Your task to perform on an android device: What's on my calendar today? Image 0: 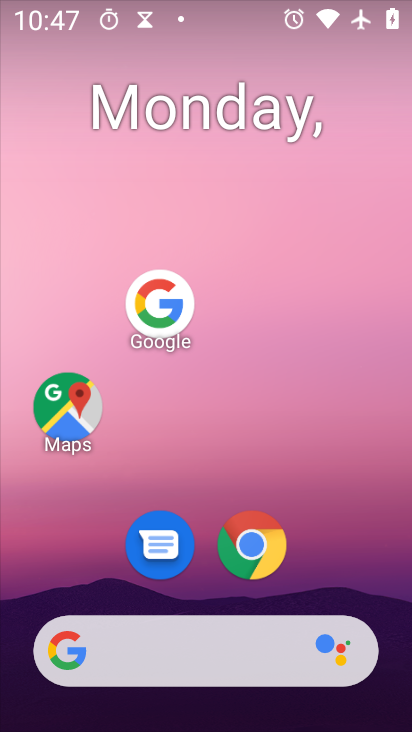
Step 0: drag from (186, 656) to (365, 85)
Your task to perform on an android device: What's on my calendar today? Image 1: 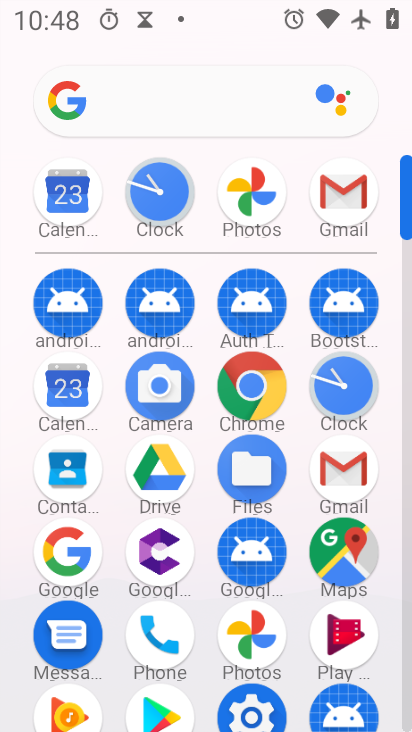
Step 1: click (62, 401)
Your task to perform on an android device: What's on my calendar today? Image 2: 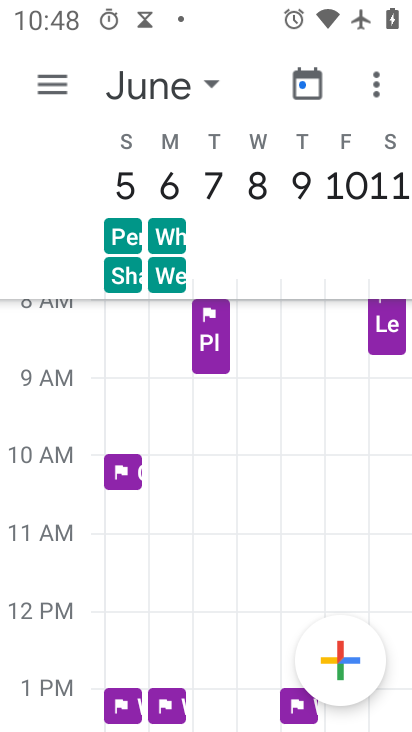
Step 2: click (136, 80)
Your task to perform on an android device: What's on my calendar today? Image 3: 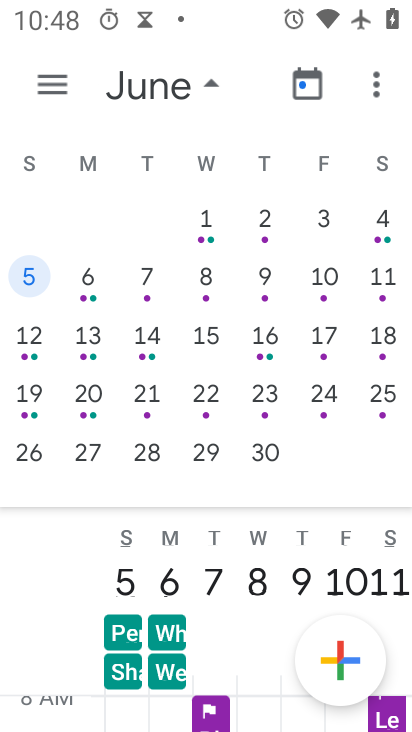
Step 3: drag from (81, 387) to (395, 379)
Your task to perform on an android device: What's on my calendar today? Image 4: 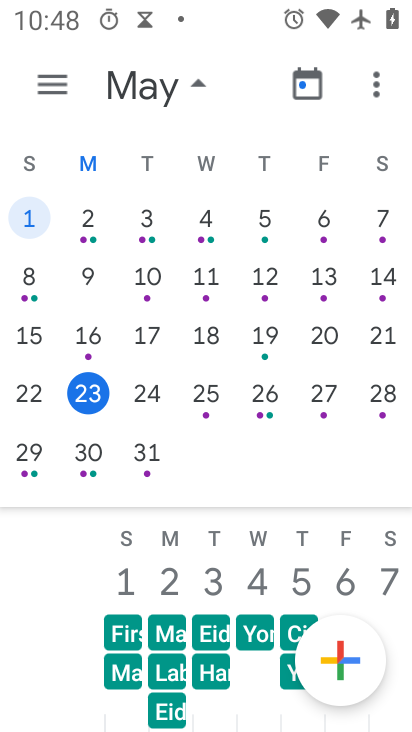
Step 4: click (99, 392)
Your task to perform on an android device: What's on my calendar today? Image 5: 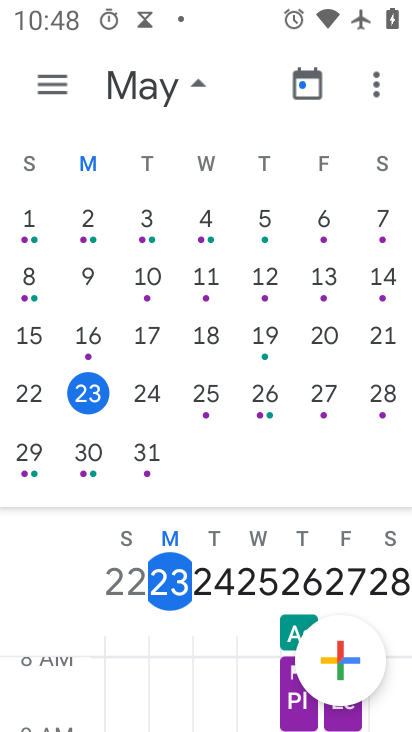
Step 5: click (58, 88)
Your task to perform on an android device: What's on my calendar today? Image 6: 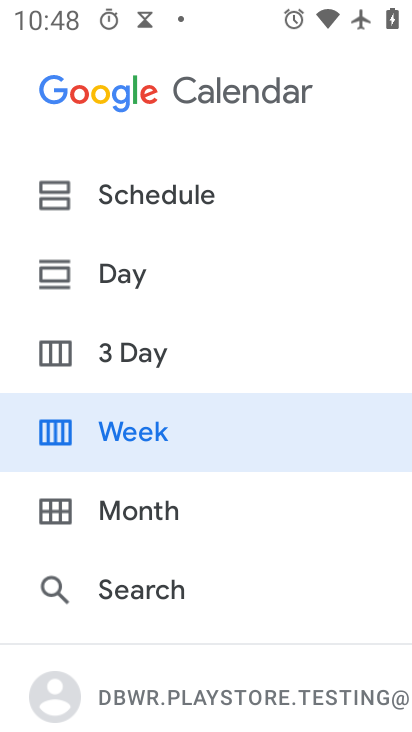
Step 6: click (122, 285)
Your task to perform on an android device: What's on my calendar today? Image 7: 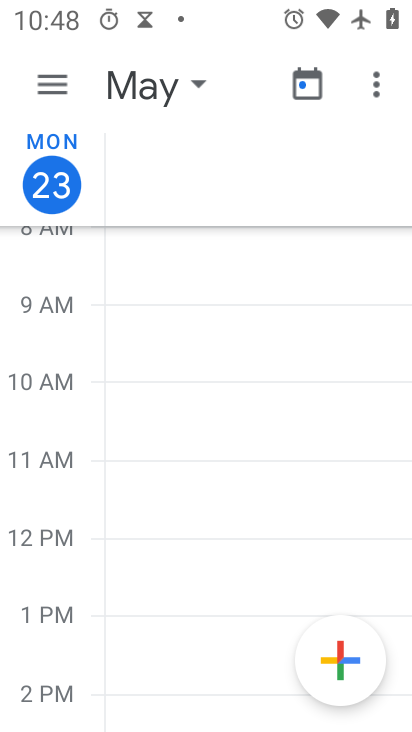
Step 7: click (54, 83)
Your task to perform on an android device: What's on my calendar today? Image 8: 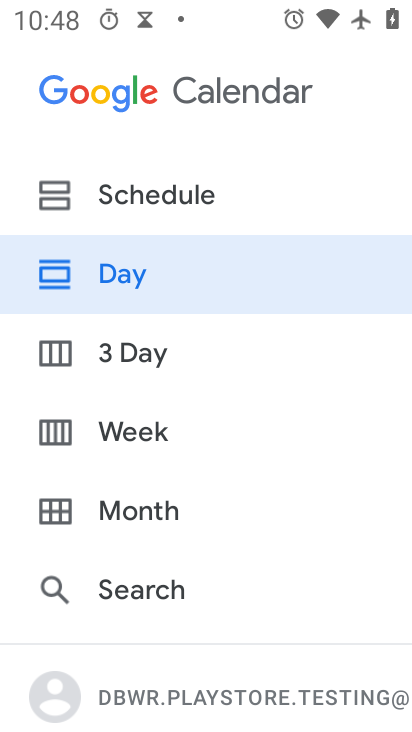
Step 8: click (154, 194)
Your task to perform on an android device: What's on my calendar today? Image 9: 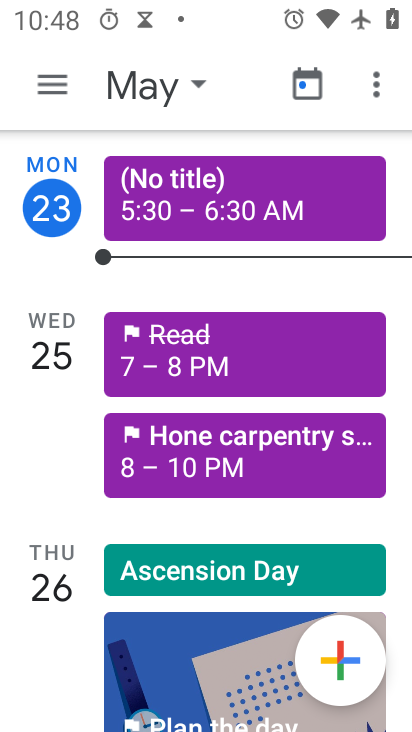
Step 9: click (280, 214)
Your task to perform on an android device: What's on my calendar today? Image 10: 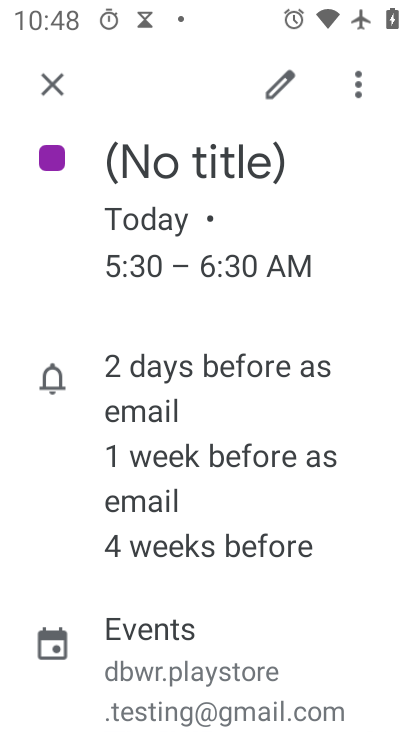
Step 10: task complete